Your task to perform on an android device: set default search engine in the chrome app Image 0: 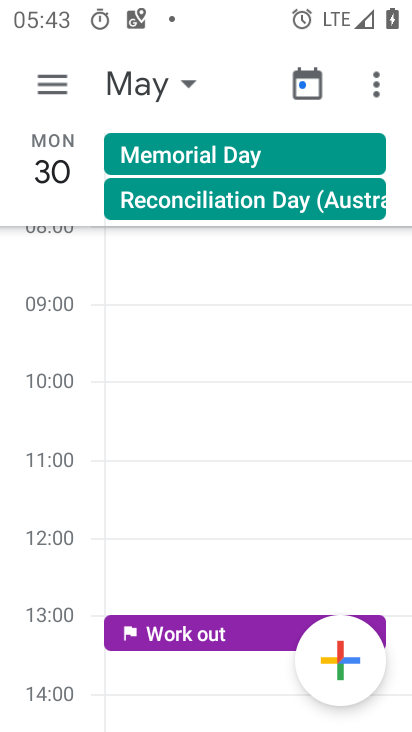
Step 0: press home button
Your task to perform on an android device: set default search engine in the chrome app Image 1: 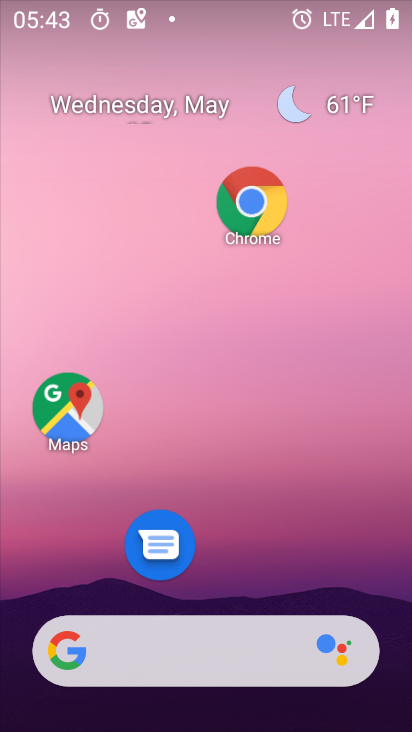
Step 1: click (258, 205)
Your task to perform on an android device: set default search engine in the chrome app Image 2: 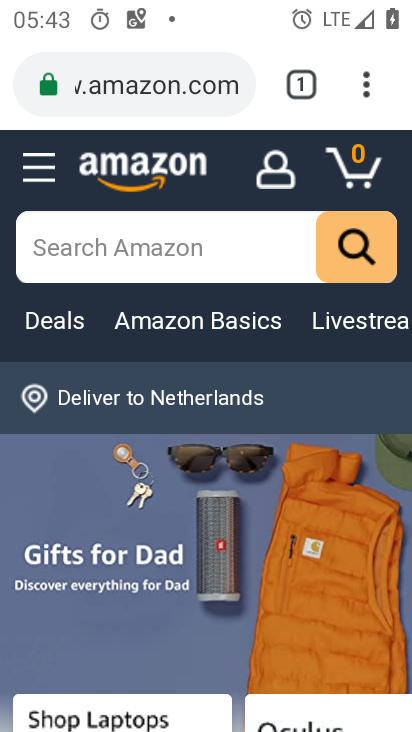
Step 2: click (368, 79)
Your task to perform on an android device: set default search engine in the chrome app Image 3: 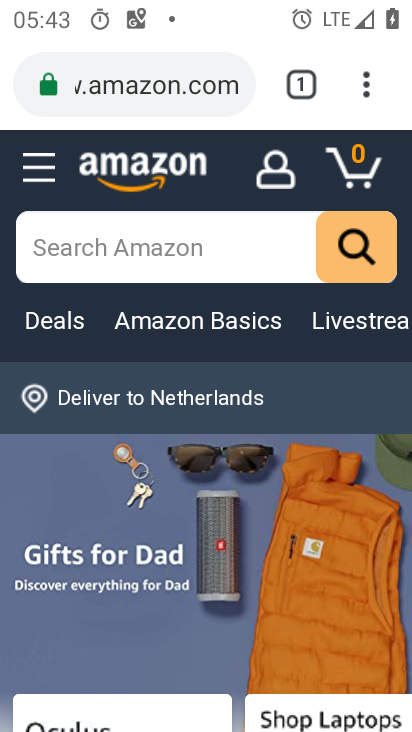
Step 3: click (367, 89)
Your task to perform on an android device: set default search engine in the chrome app Image 4: 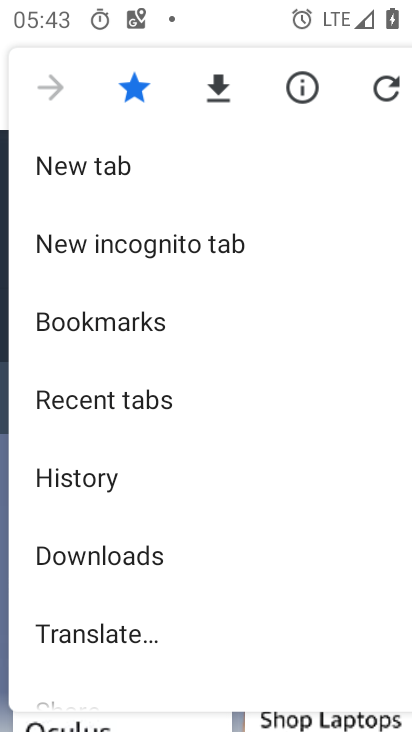
Step 4: drag from (195, 594) to (234, 207)
Your task to perform on an android device: set default search engine in the chrome app Image 5: 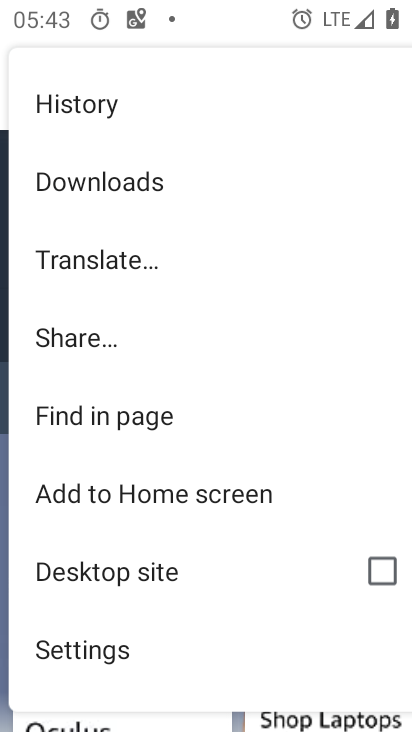
Step 5: drag from (166, 623) to (178, 346)
Your task to perform on an android device: set default search engine in the chrome app Image 6: 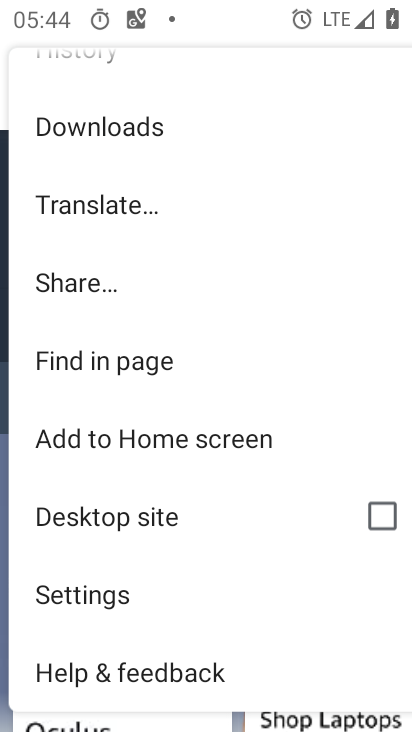
Step 6: drag from (210, 143) to (167, 560)
Your task to perform on an android device: set default search engine in the chrome app Image 7: 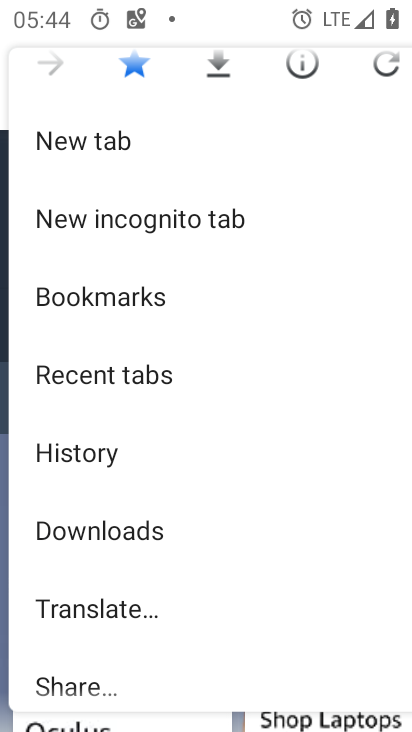
Step 7: drag from (130, 125) to (137, 591)
Your task to perform on an android device: set default search engine in the chrome app Image 8: 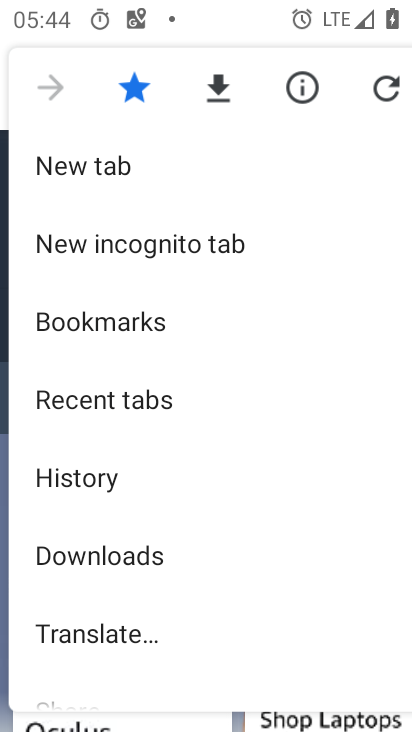
Step 8: drag from (146, 687) to (168, 368)
Your task to perform on an android device: set default search engine in the chrome app Image 9: 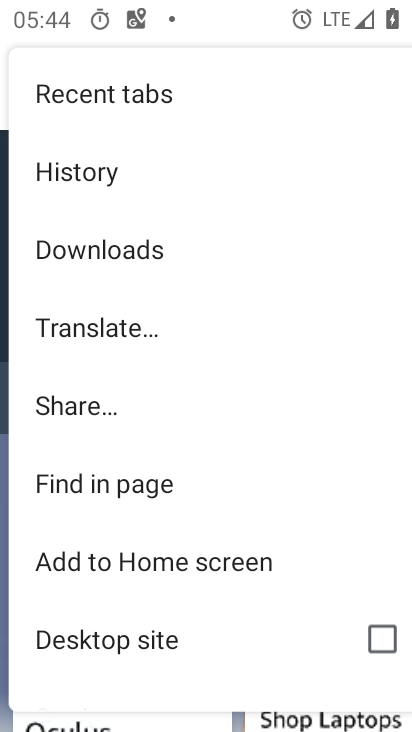
Step 9: drag from (112, 557) to (112, 336)
Your task to perform on an android device: set default search engine in the chrome app Image 10: 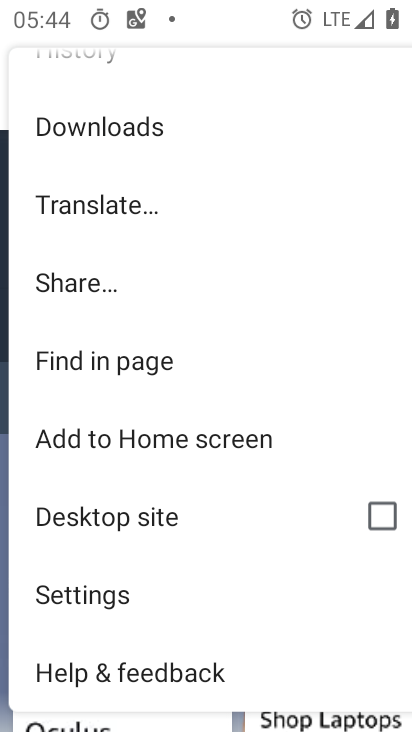
Step 10: click (101, 597)
Your task to perform on an android device: set default search engine in the chrome app Image 11: 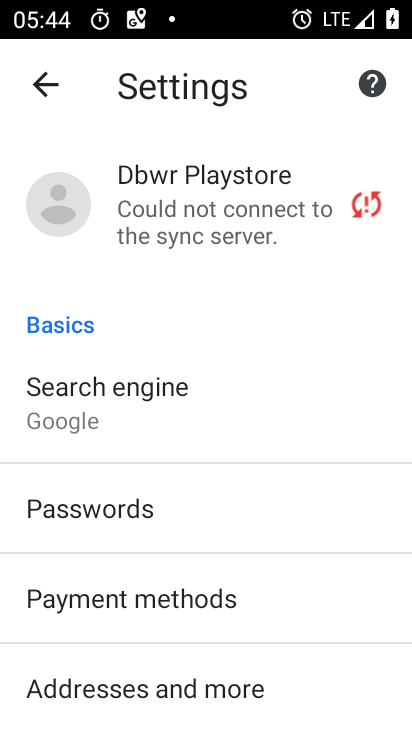
Step 11: click (97, 411)
Your task to perform on an android device: set default search engine in the chrome app Image 12: 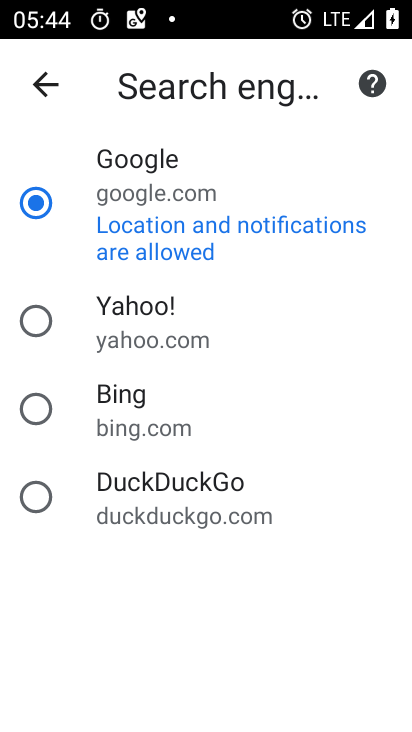
Step 12: task complete